Your task to perform on an android device: Go to Maps Image 0: 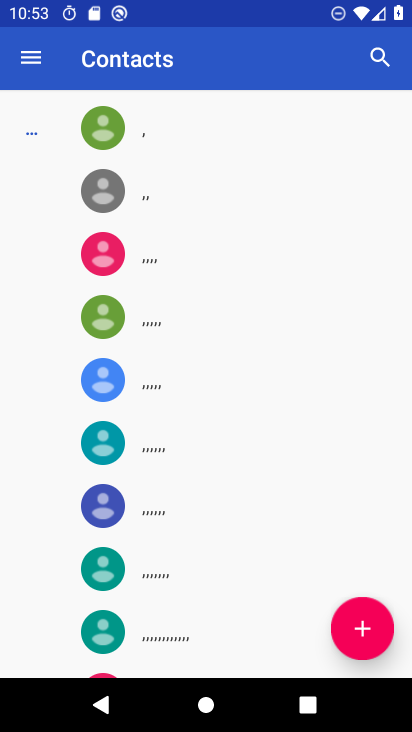
Step 0: press home button
Your task to perform on an android device: Go to Maps Image 1: 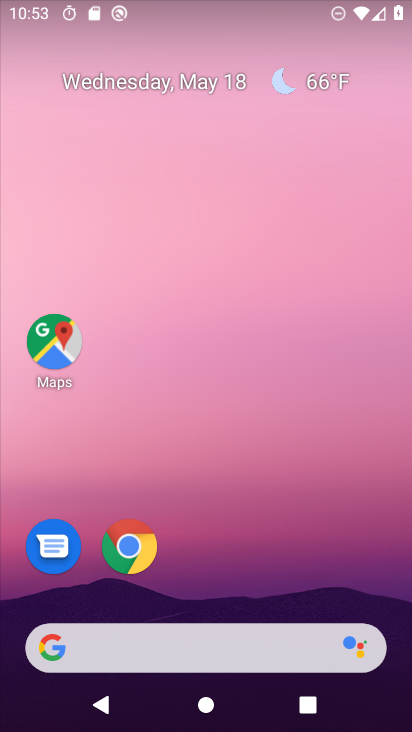
Step 1: click (69, 345)
Your task to perform on an android device: Go to Maps Image 2: 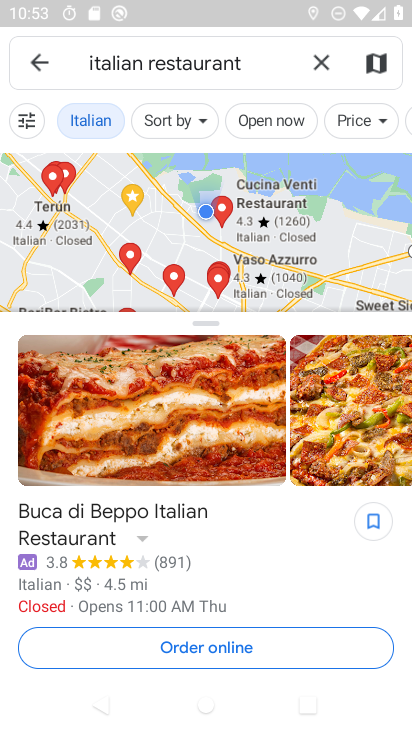
Step 2: task complete